Your task to perform on an android device: Show me recent news Image 0: 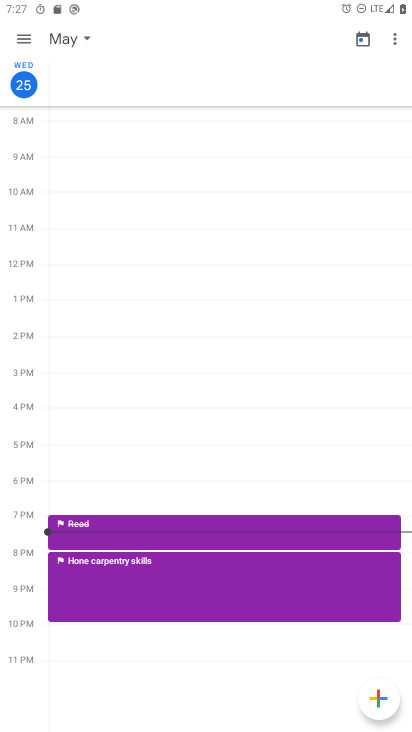
Step 0: press home button
Your task to perform on an android device: Show me recent news Image 1: 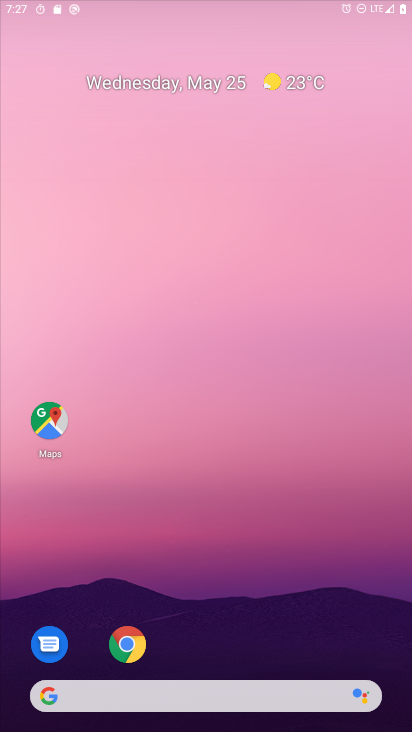
Step 1: drag from (378, 635) to (217, 40)
Your task to perform on an android device: Show me recent news Image 2: 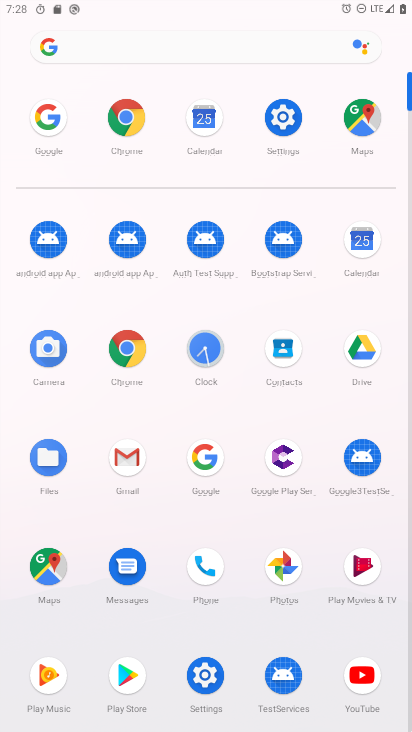
Step 2: click (205, 459)
Your task to perform on an android device: Show me recent news Image 3: 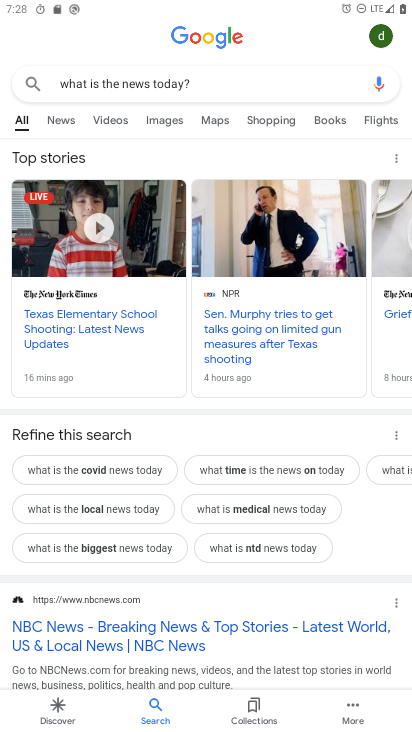
Step 3: press back button
Your task to perform on an android device: Show me recent news Image 4: 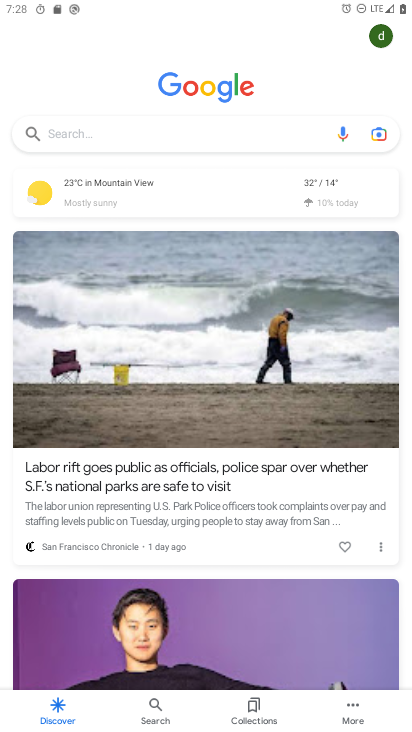
Step 4: click (135, 121)
Your task to perform on an android device: Show me recent news Image 5: 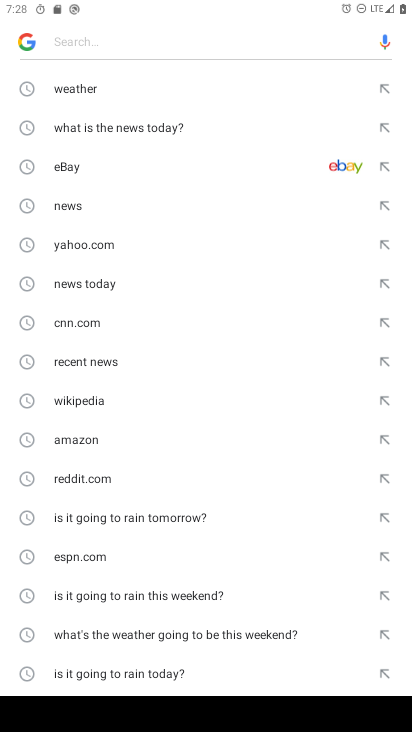
Step 5: click (112, 369)
Your task to perform on an android device: Show me recent news Image 6: 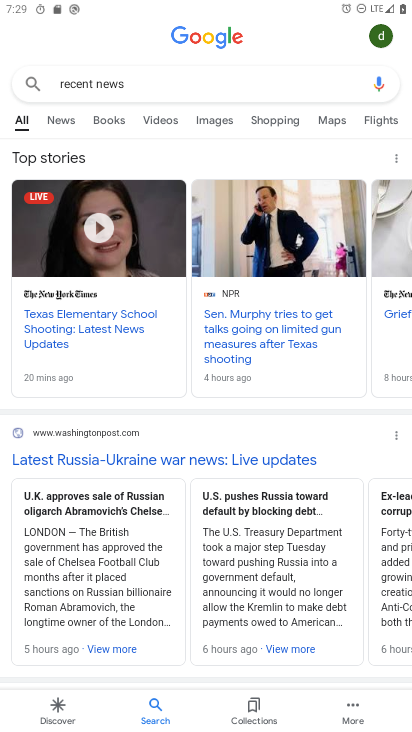
Step 6: task complete